Your task to perform on an android device: Go to Android settings Image 0: 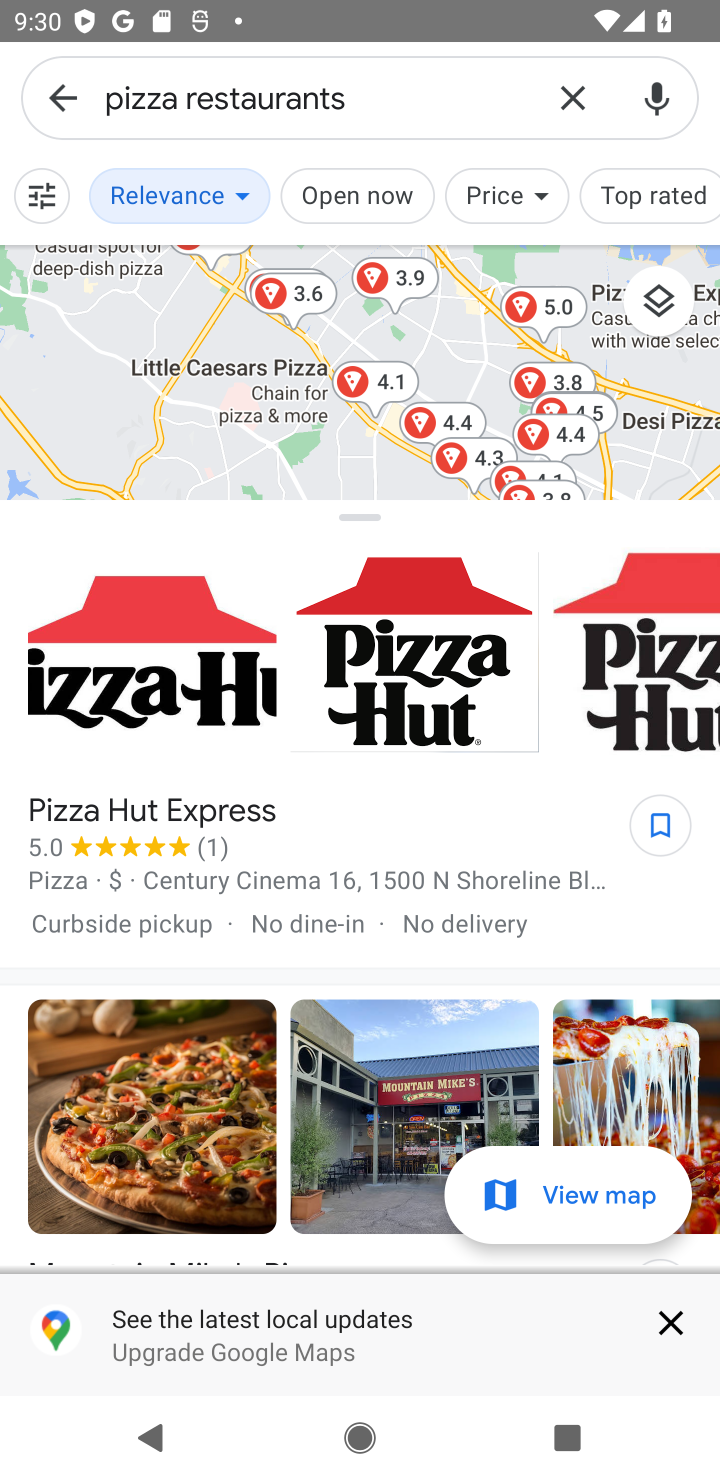
Step 0: press home button
Your task to perform on an android device: Go to Android settings Image 1: 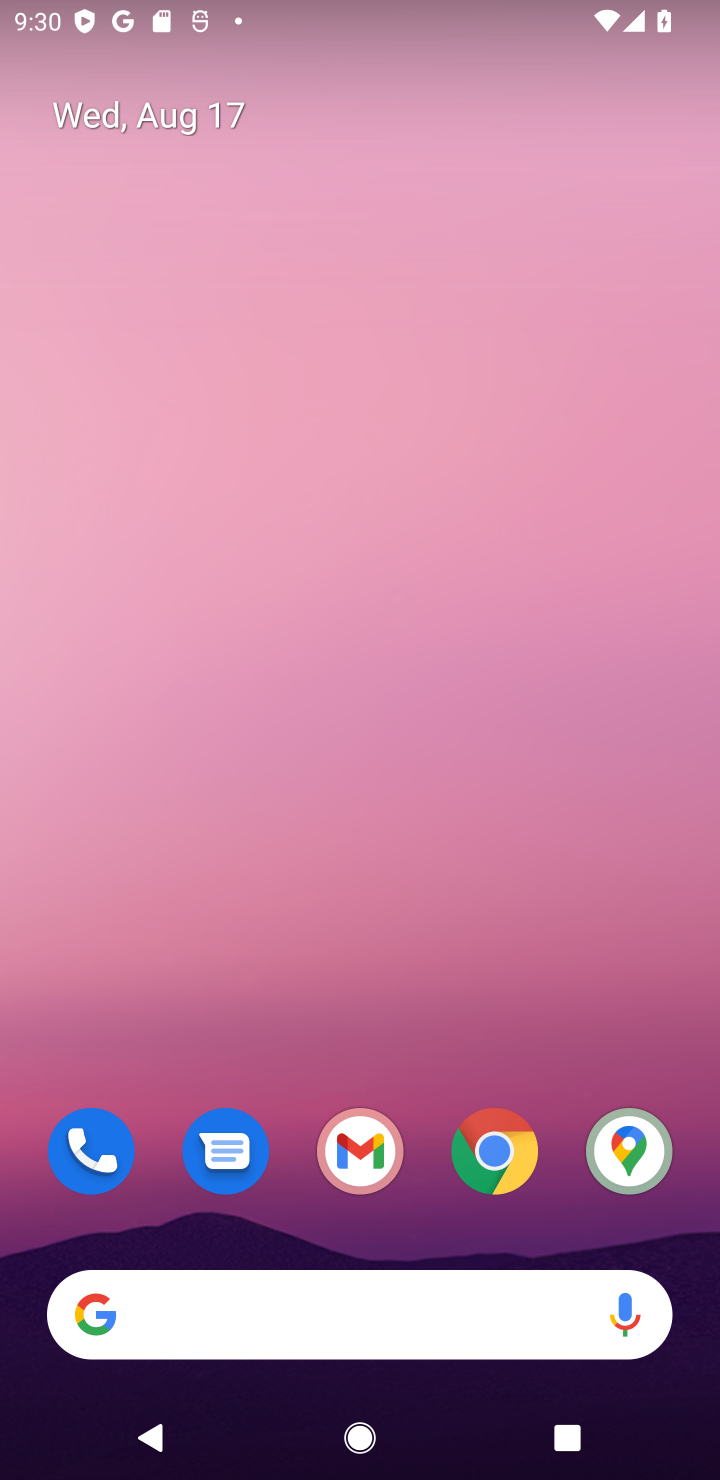
Step 1: click (334, 249)
Your task to perform on an android device: Go to Android settings Image 2: 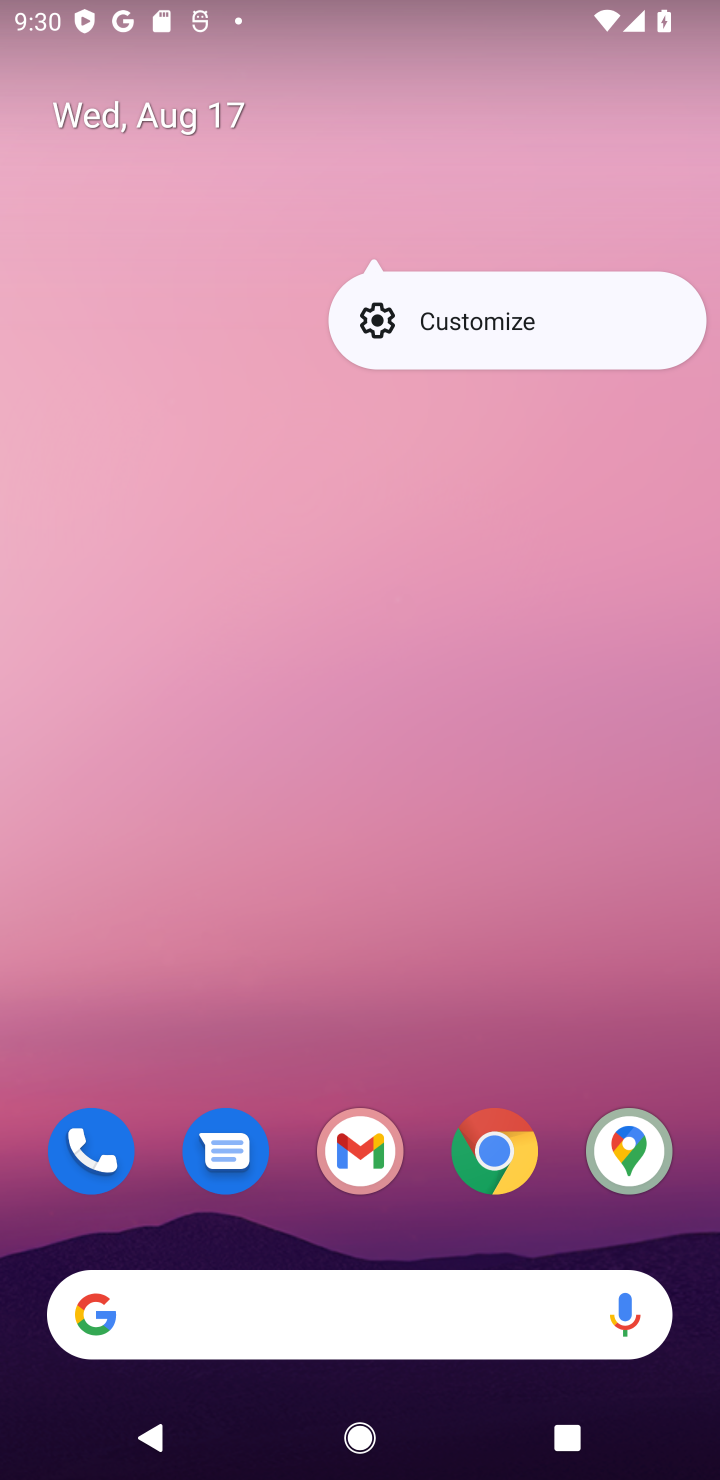
Step 2: drag from (310, 1166) to (309, 75)
Your task to perform on an android device: Go to Android settings Image 3: 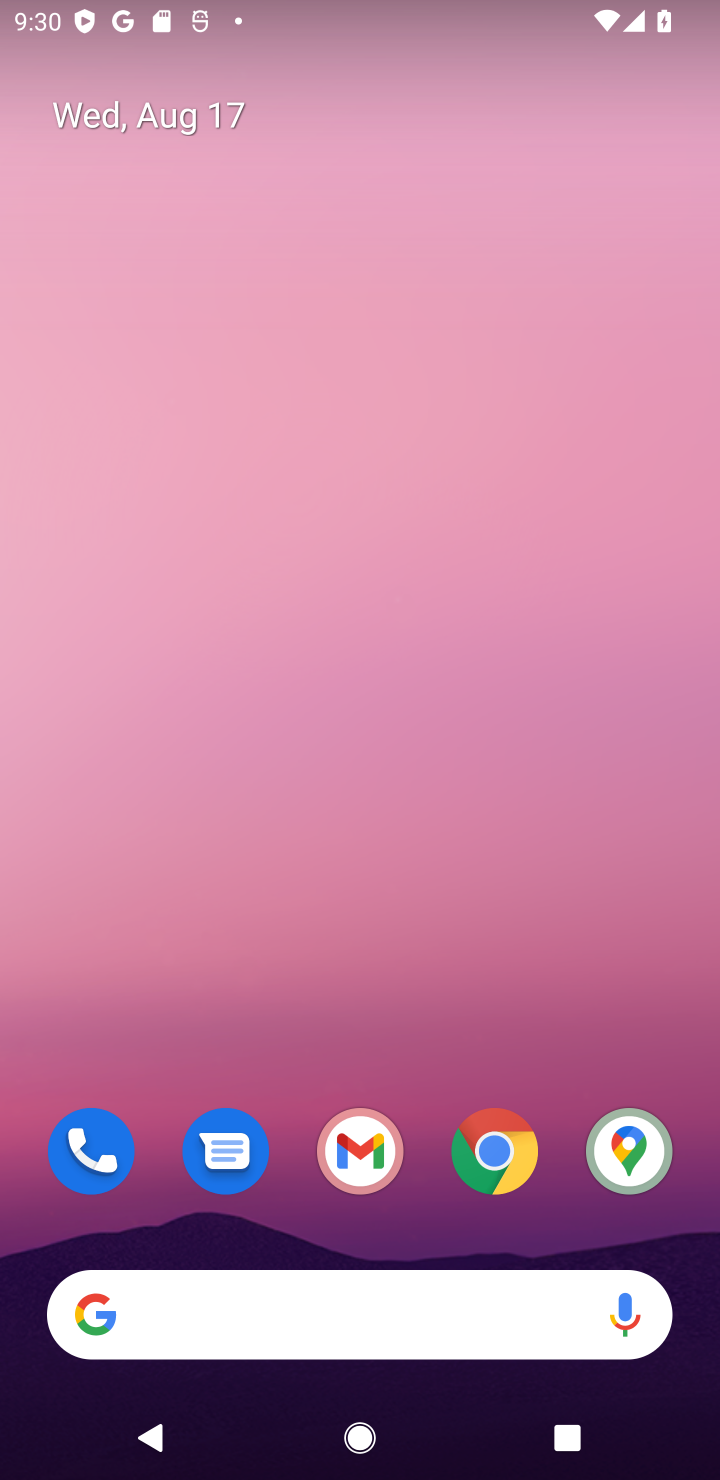
Step 3: drag from (356, 975) to (346, 188)
Your task to perform on an android device: Go to Android settings Image 4: 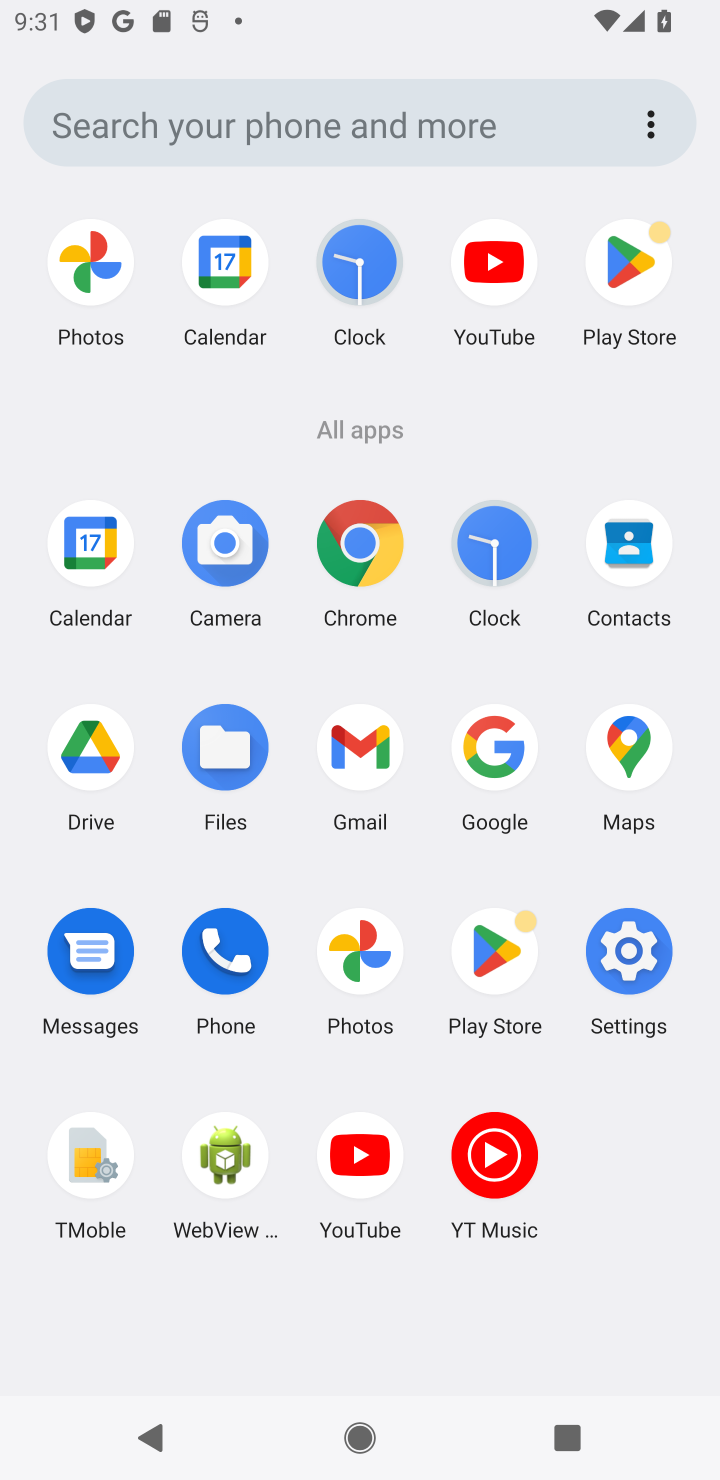
Step 4: click (622, 959)
Your task to perform on an android device: Go to Android settings Image 5: 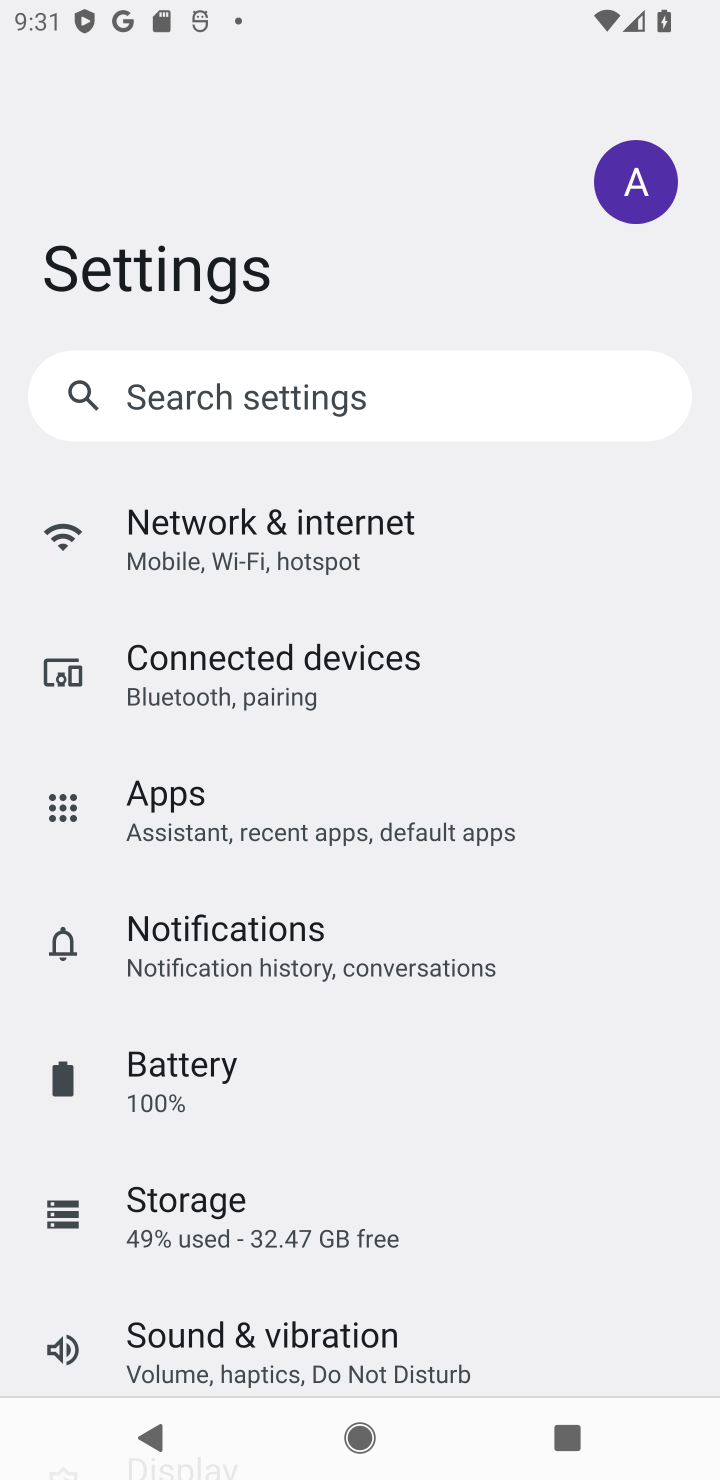
Step 5: drag from (298, 856) to (332, 495)
Your task to perform on an android device: Go to Android settings Image 6: 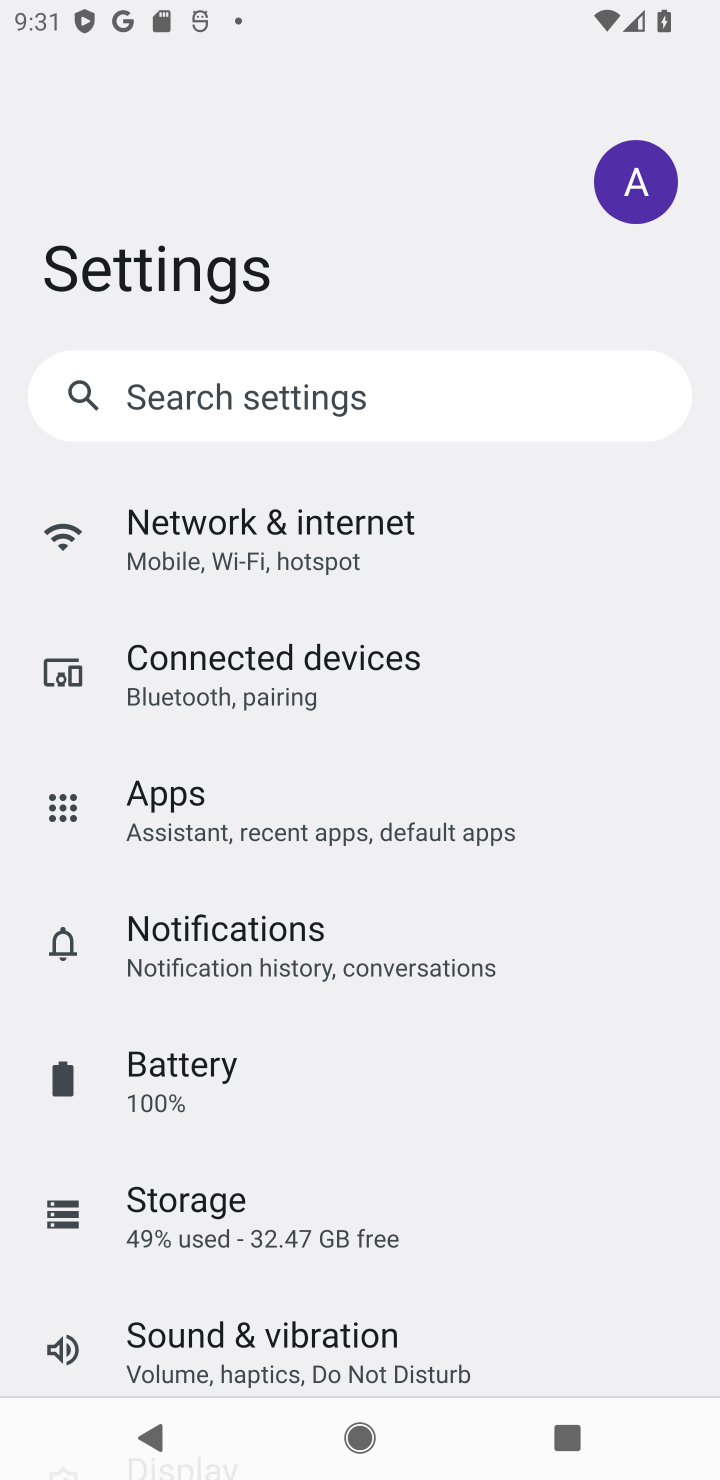
Step 6: drag from (290, 1253) to (426, 512)
Your task to perform on an android device: Go to Android settings Image 7: 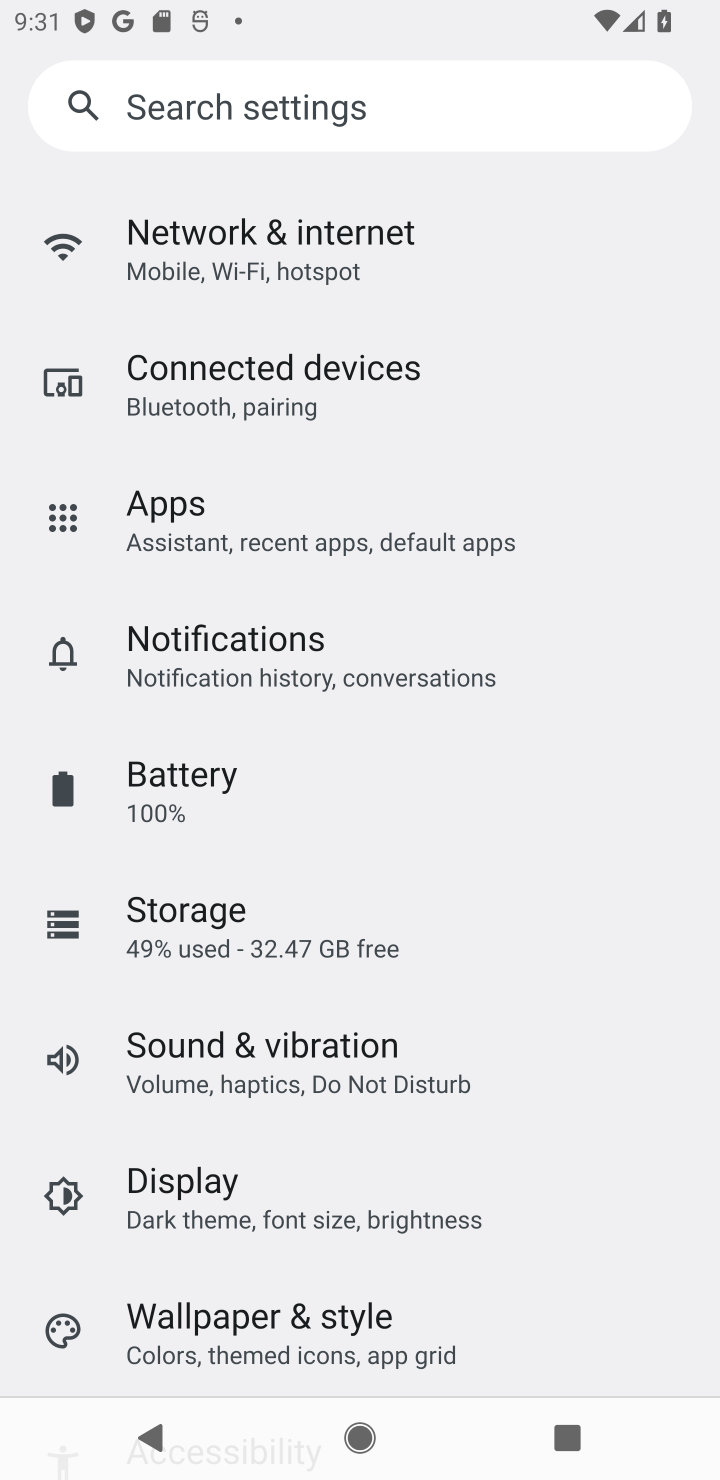
Step 7: drag from (296, 1043) to (298, 417)
Your task to perform on an android device: Go to Android settings Image 8: 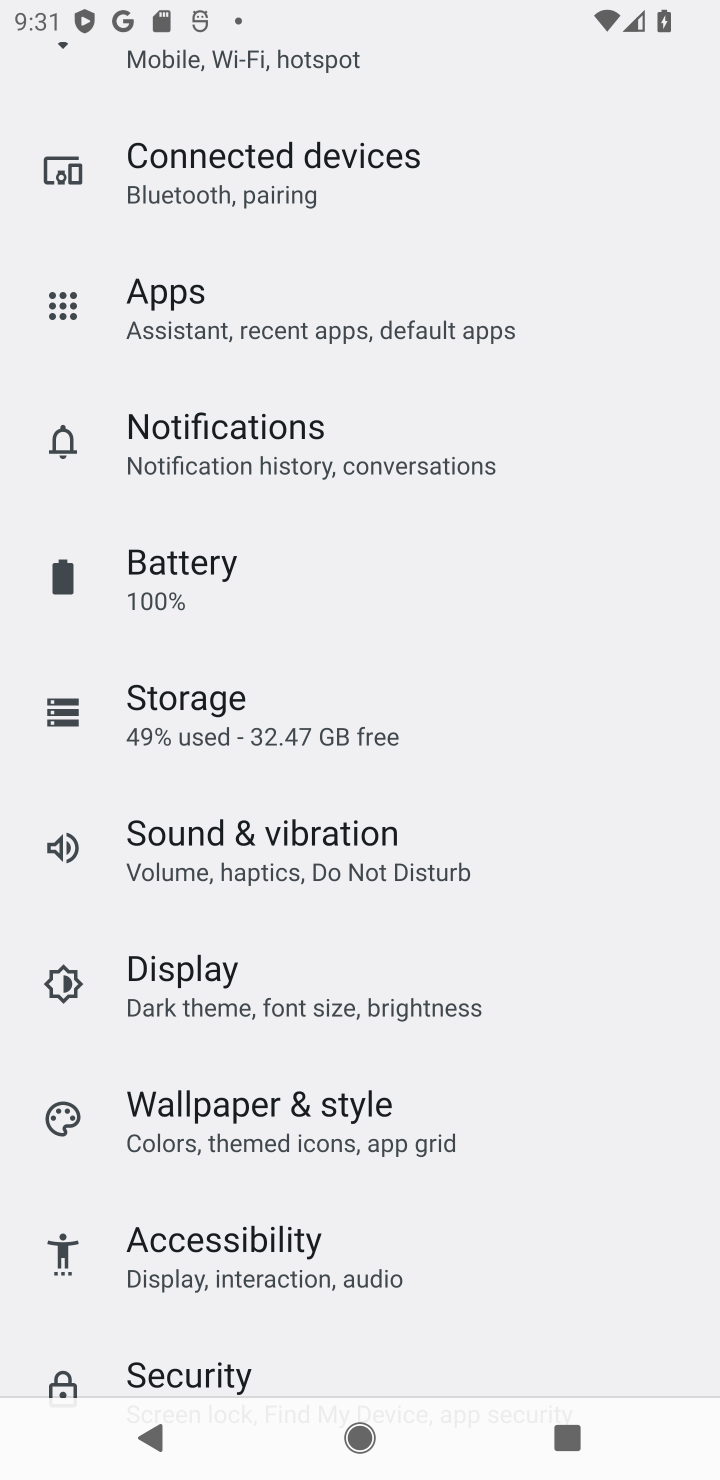
Step 8: drag from (420, 1258) to (425, 320)
Your task to perform on an android device: Go to Android settings Image 9: 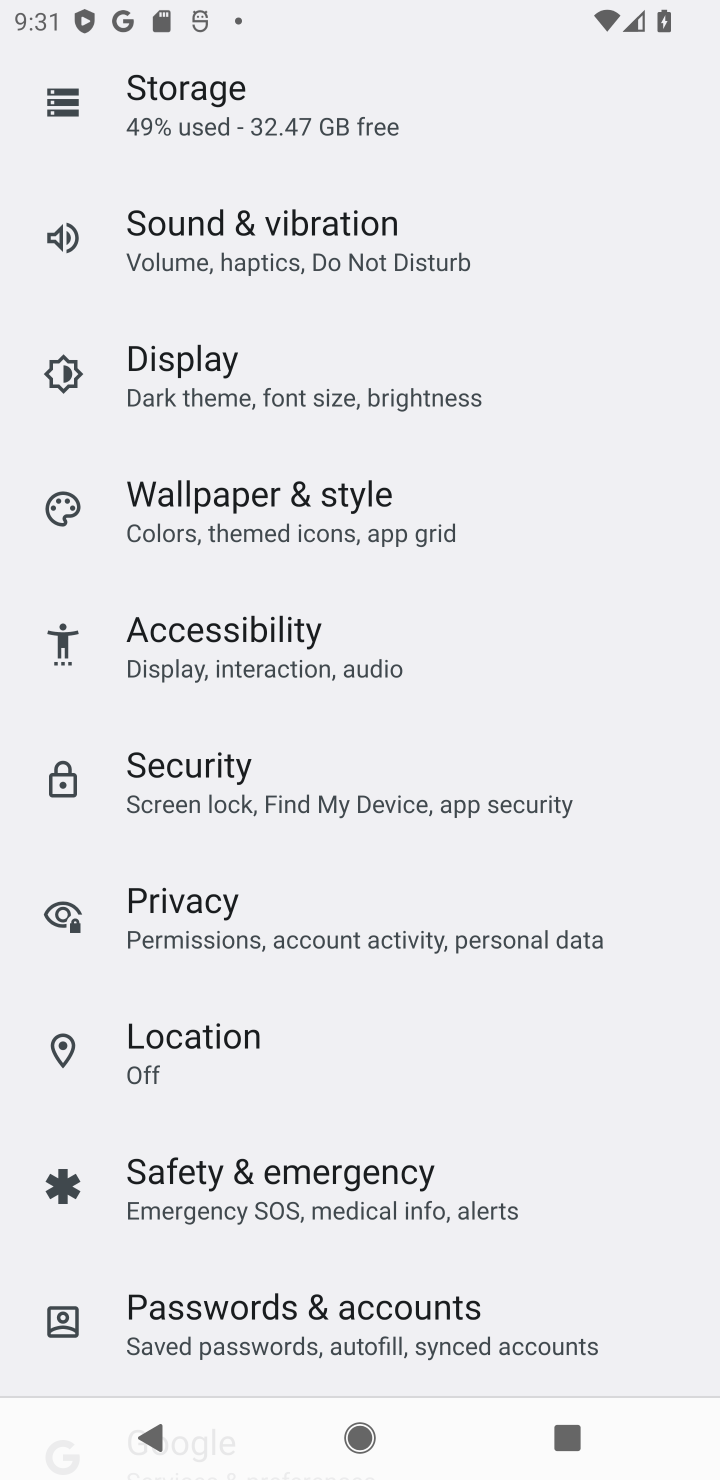
Step 9: drag from (276, 650) to (358, 342)
Your task to perform on an android device: Go to Android settings Image 10: 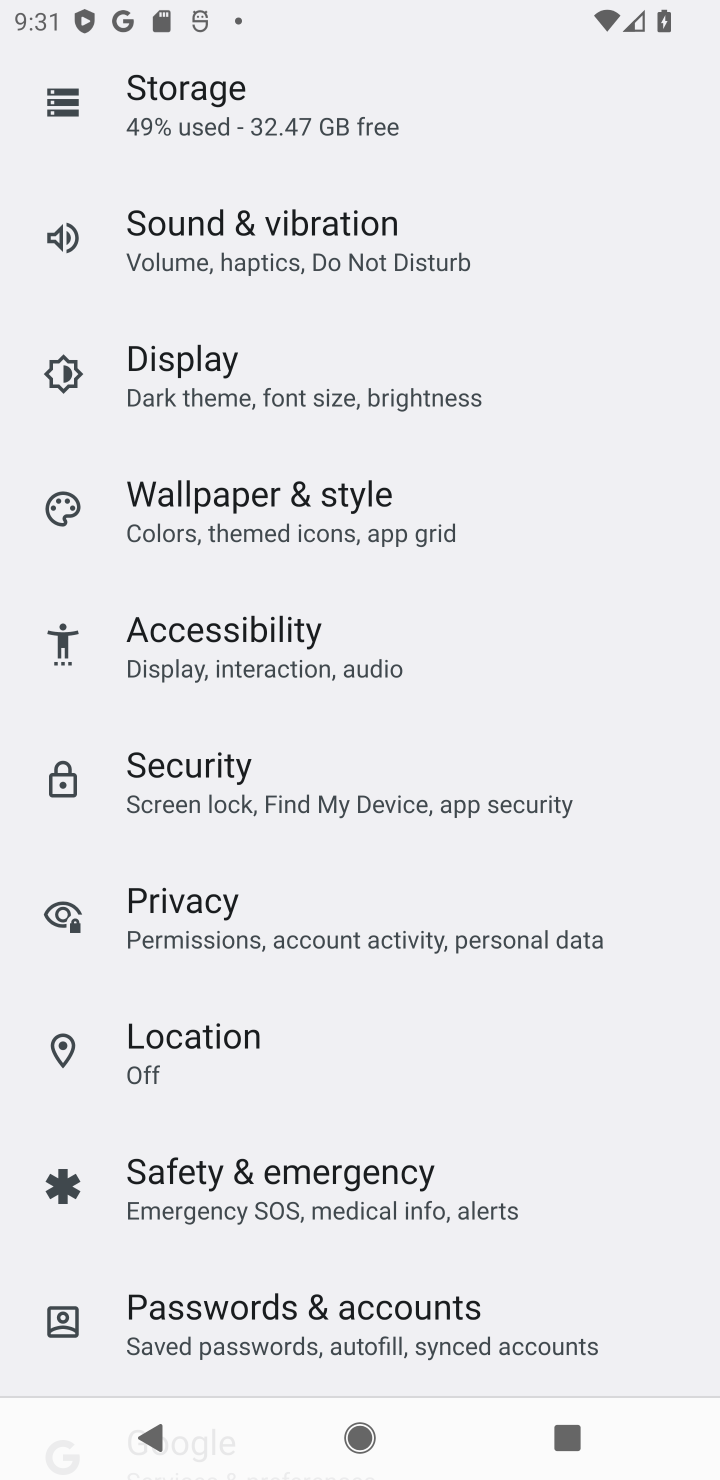
Step 10: drag from (429, 1300) to (358, 704)
Your task to perform on an android device: Go to Android settings Image 11: 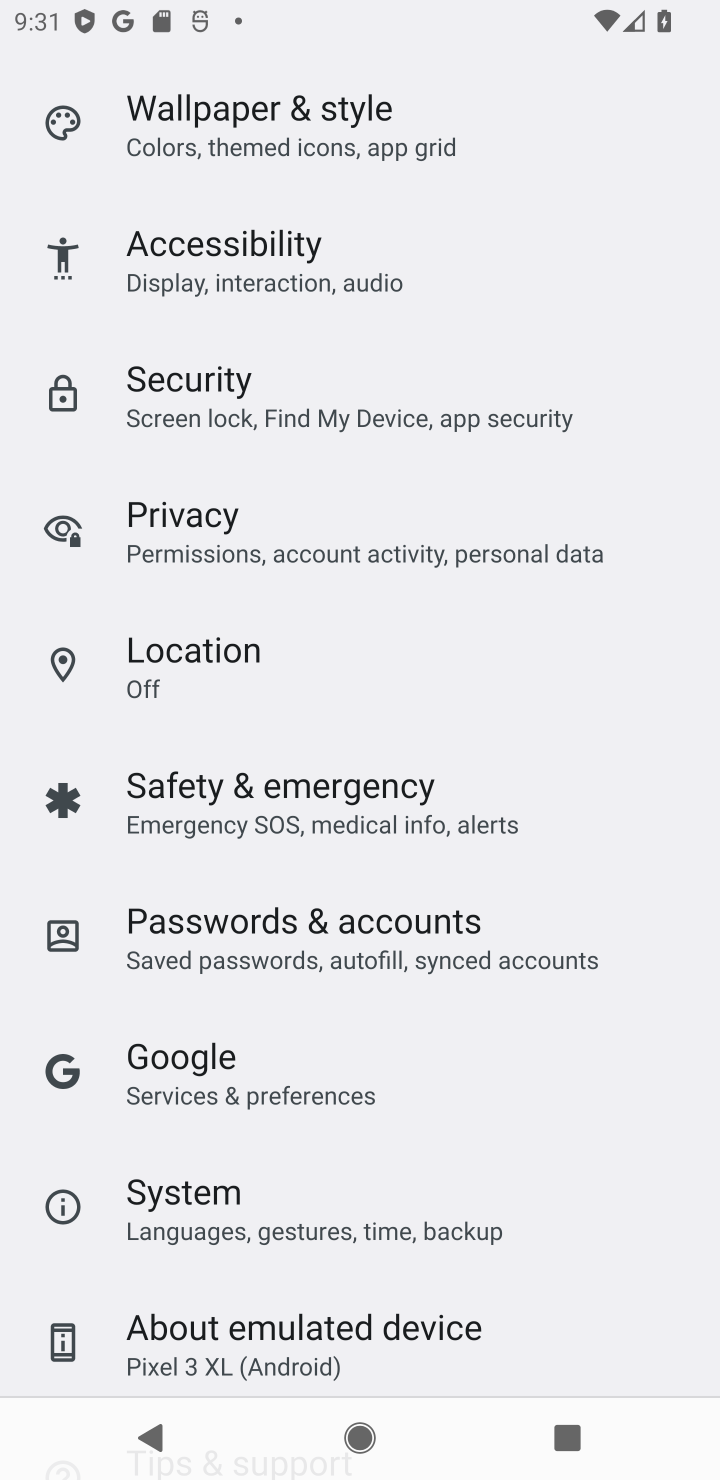
Step 11: click (275, 1320)
Your task to perform on an android device: Go to Android settings Image 12: 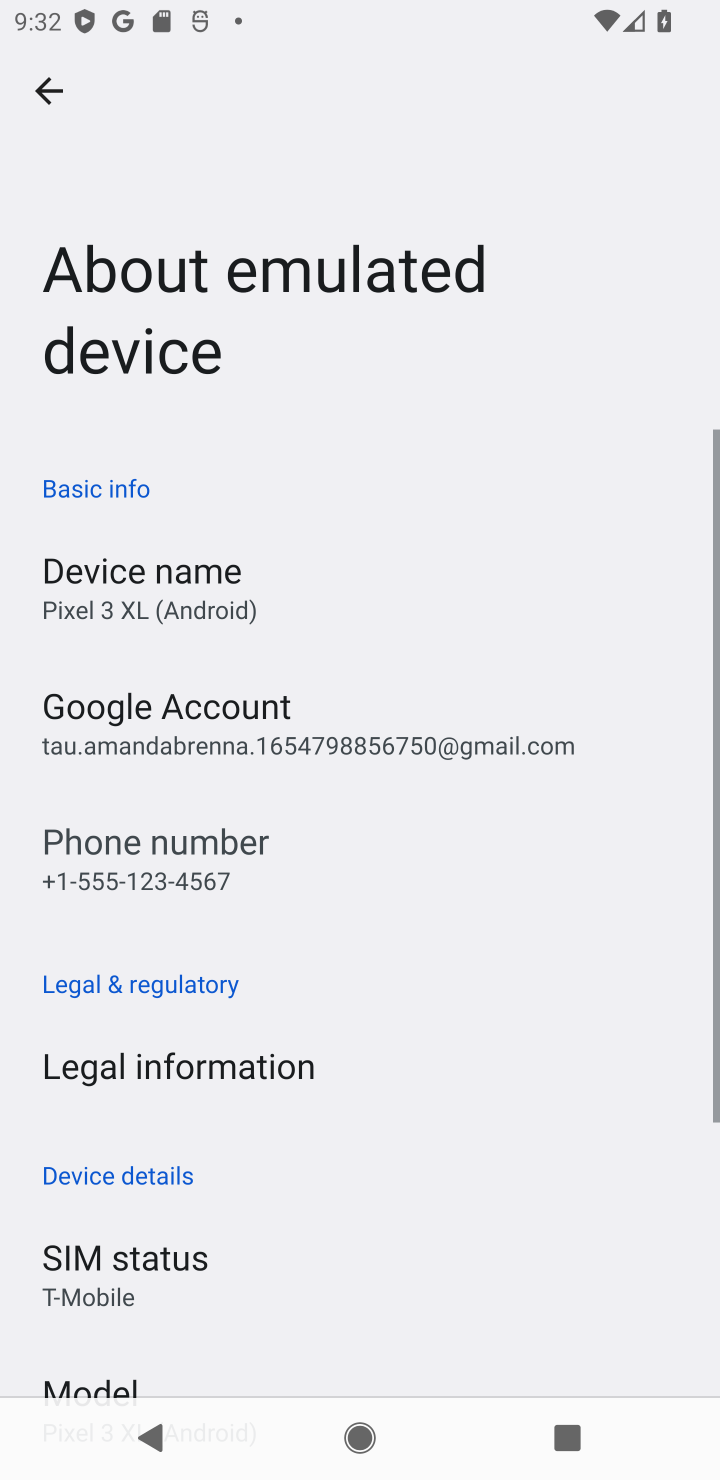
Step 12: drag from (275, 1269) to (456, 351)
Your task to perform on an android device: Go to Android settings Image 13: 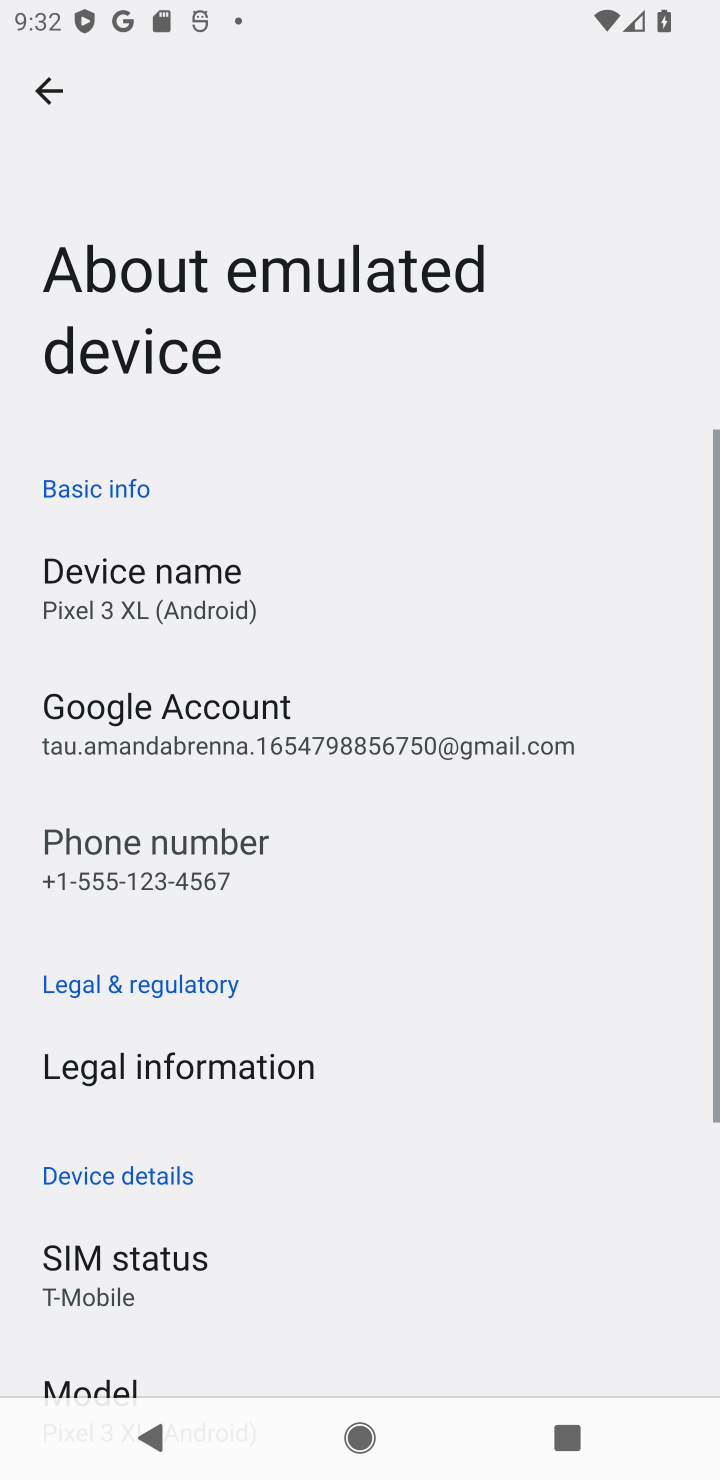
Step 13: drag from (267, 1041) to (297, 421)
Your task to perform on an android device: Go to Android settings Image 14: 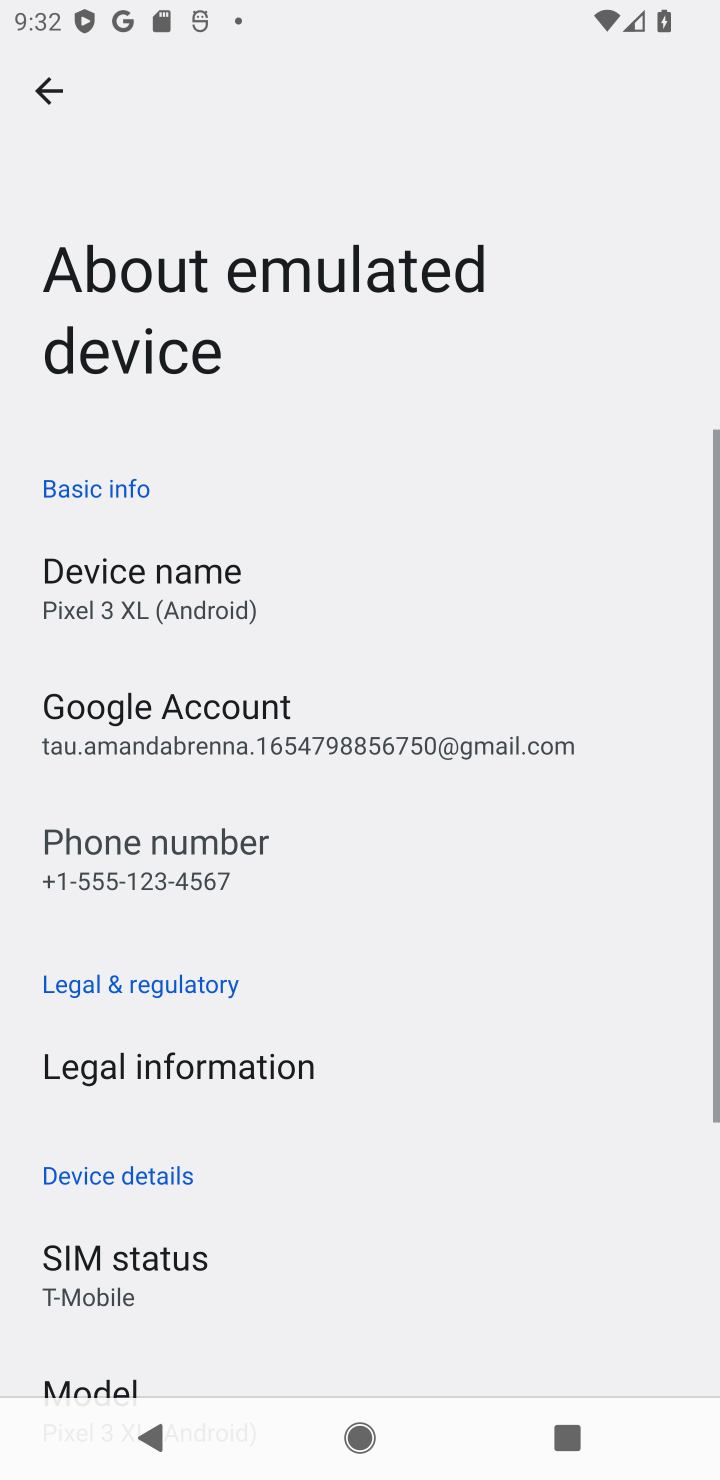
Step 14: drag from (289, 1108) to (443, 390)
Your task to perform on an android device: Go to Android settings Image 15: 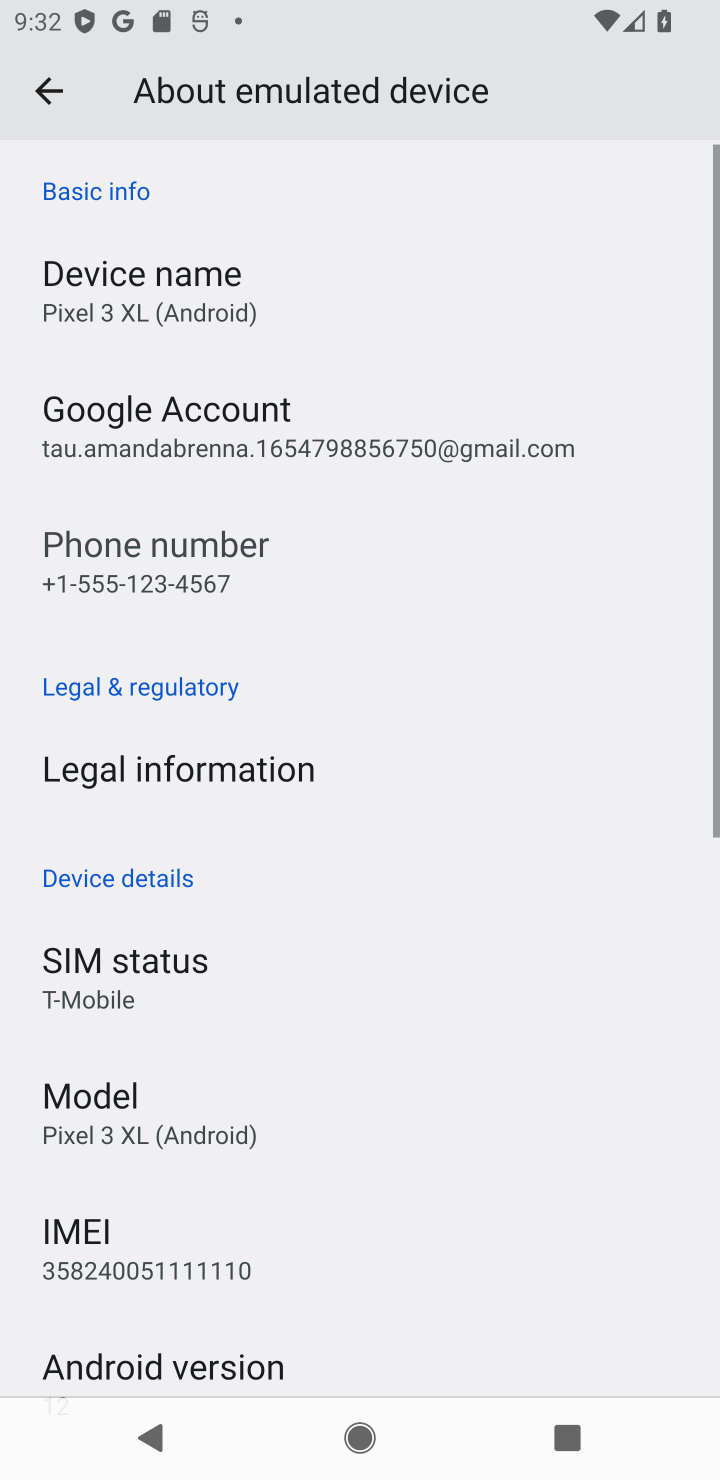
Step 15: drag from (352, 1216) to (360, 540)
Your task to perform on an android device: Go to Android settings Image 16: 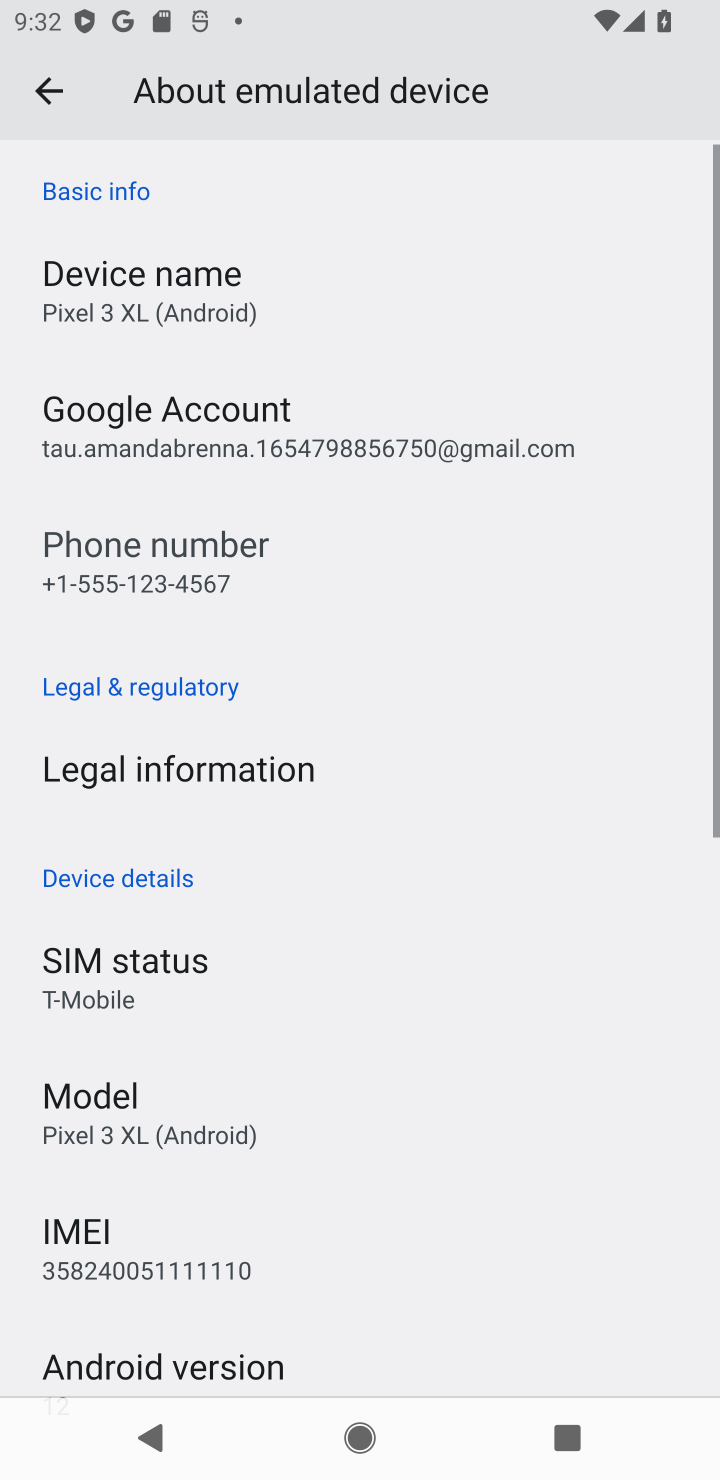
Step 16: click (145, 1374)
Your task to perform on an android device: Go to Android settings Image 17: 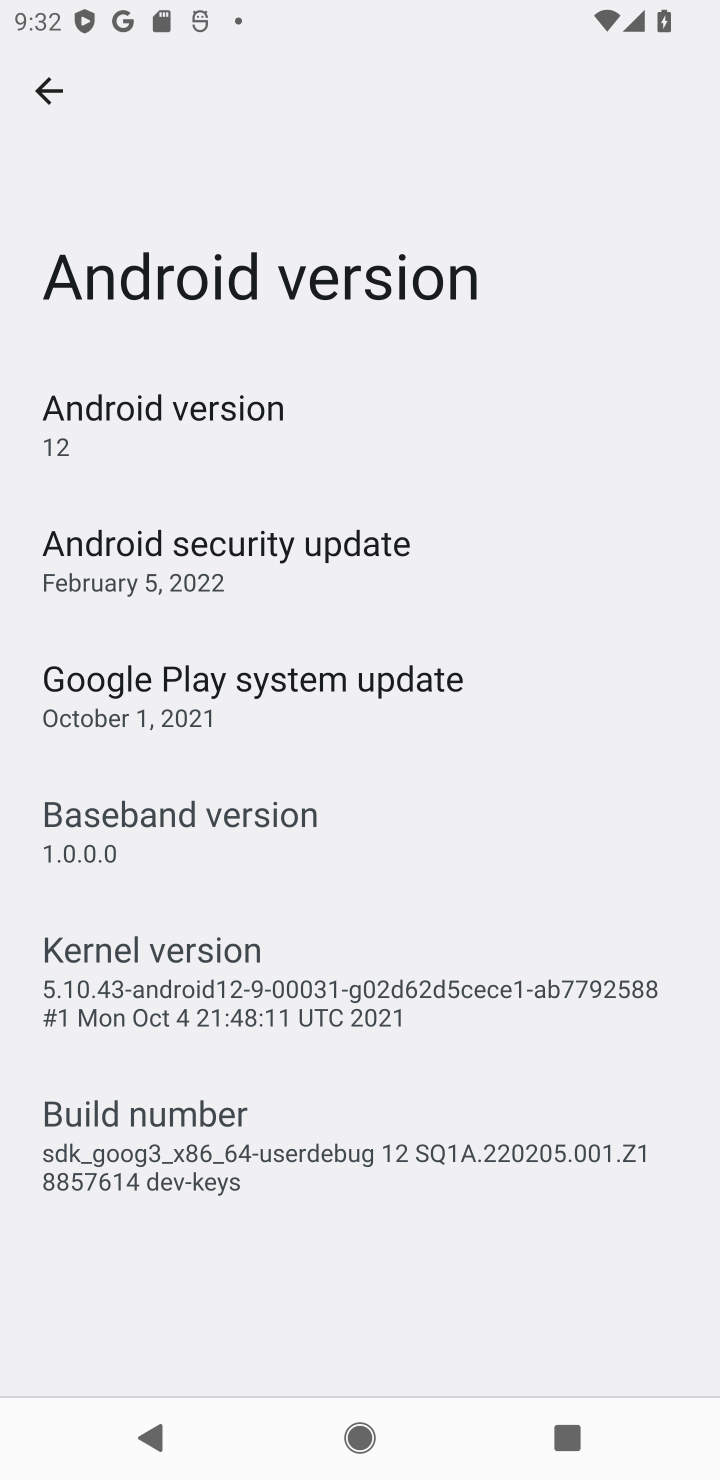
Step 17: task complete